Your task to perform on an android device: search for starred emails in the gmail app Image 0: 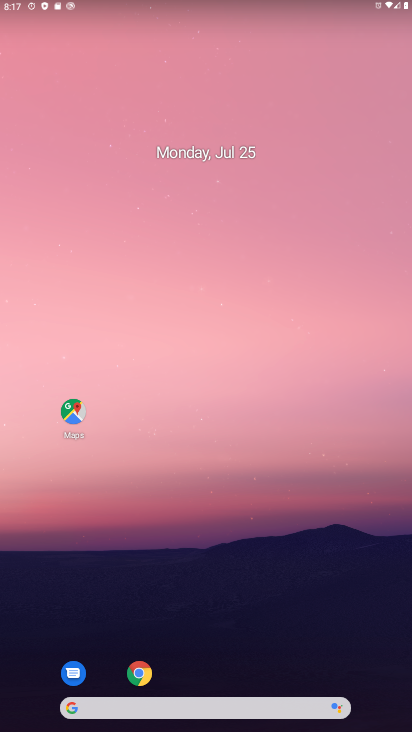
Step 0: click (118, 86)
Your task to perform on an android device: search for starred emails in the gmail app Image 1: 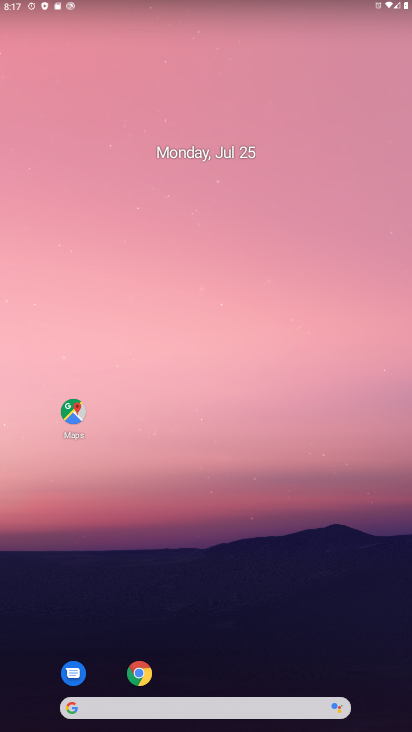
Step 1: drag from (365, 567) to (119, 68)
Your task to perform on an android device: search for starred emails in the gmail app Image 2: 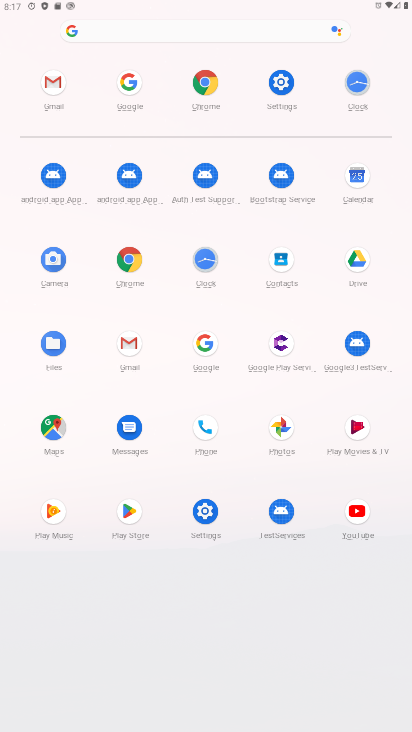
Step 2: click (126, 352)
Your task to perform on an android device: search for starred emails in the gmail app Image 3: 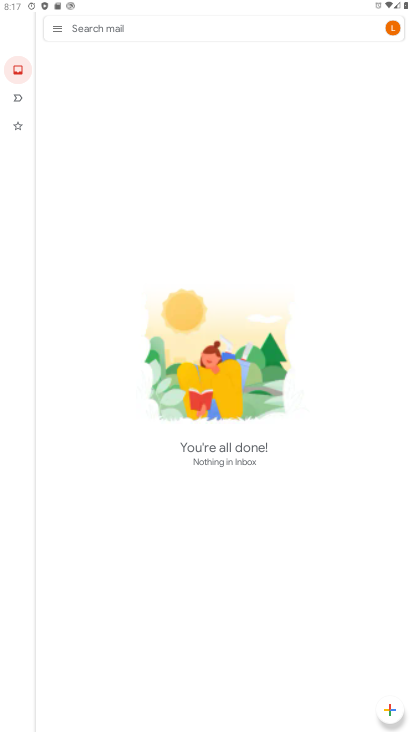
Step 3: click (50, 16)
Your task to perform on an android device: search for starred emails in the gmail app Image 4: 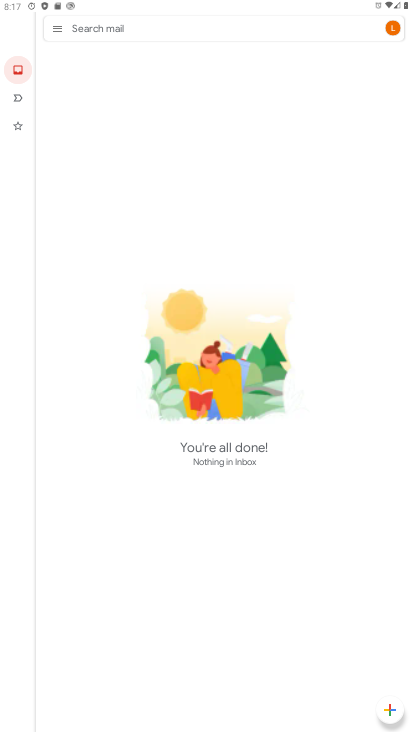
Step 4: click (57, 28)
Your task to perform on an android device: search for starred emails in the gmail app Image 5: 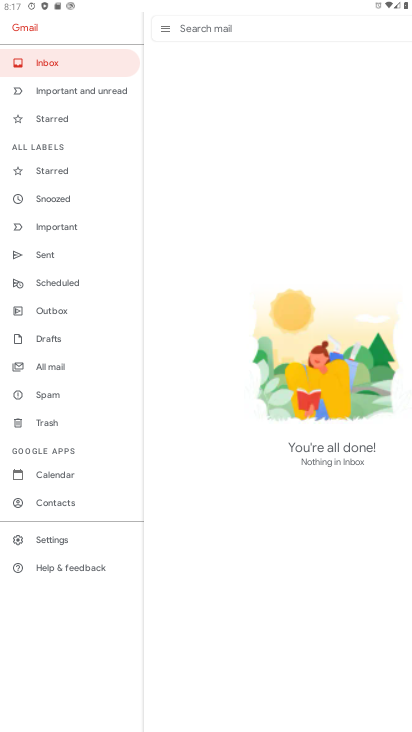
Step 5: click (64, 167)
Your task to perform on an android device: search for starred emails in the gmail app Image 6: 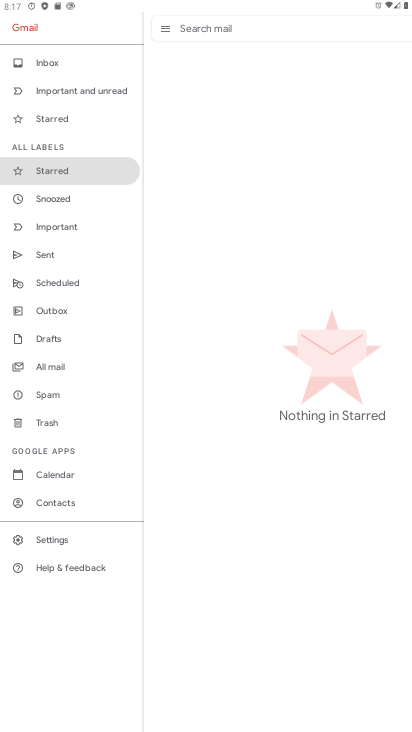
Step 6: task complete